Your task to perform on an android device: change the clock display to show seconds Image 0: 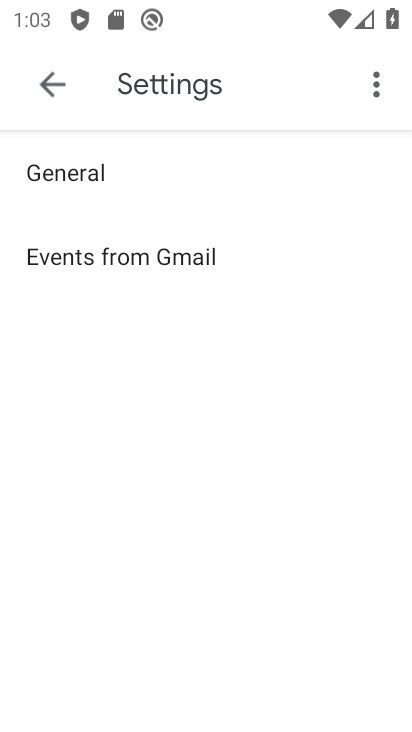
Step 0: press home button
Your task to perform on an android device: change the clock display to show seconds Image 1: 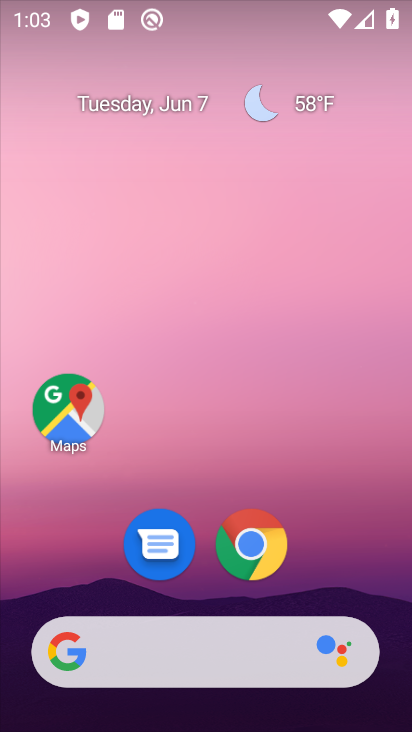
Step 1: drag from (246, 620) to (137, 13)
Your task to perform on an android device: change the clock display to show seconds Image 2: 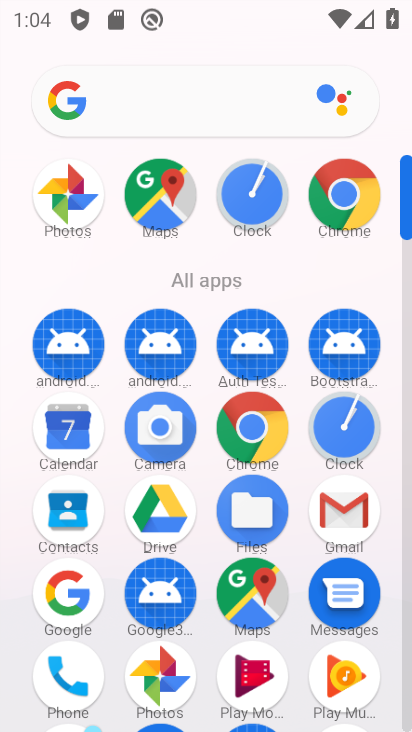
Step 2: click (345, 431)
Your task to perform on an android device: change the clock display to show seconds Image 3: 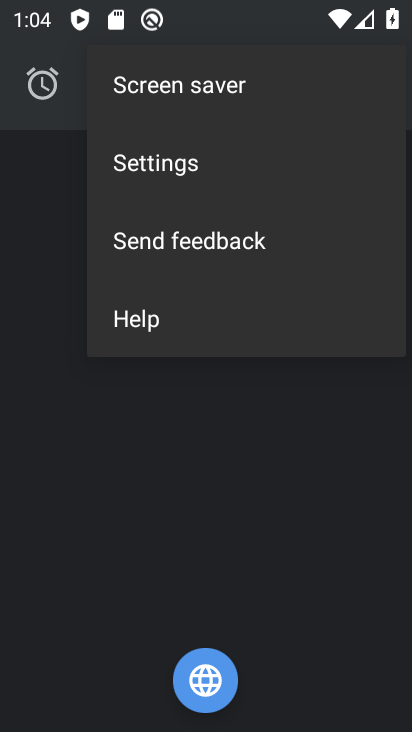
Step 3: click (193, 168)
Your task to perform on an android device: change the clock display to show seconds Image 4: 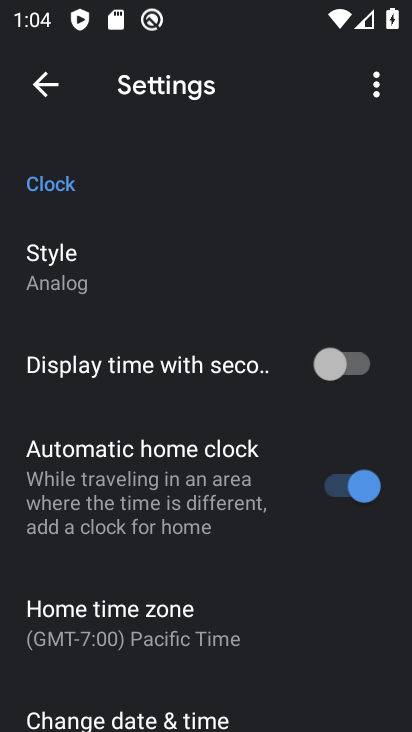
Step 4: click (358, 359)
Your task to perform on an android device: change the clock display to show seconds Image 5: 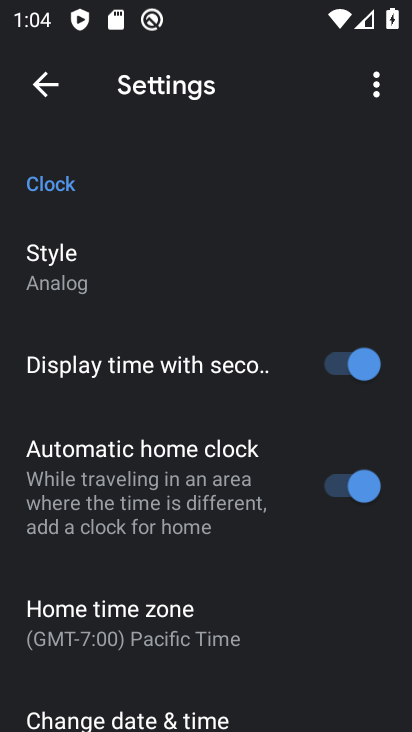
Step 5: task complete